Your task to perform on an android device: Open Google Chrome and click the shortcut for Amazon.com Image 0: 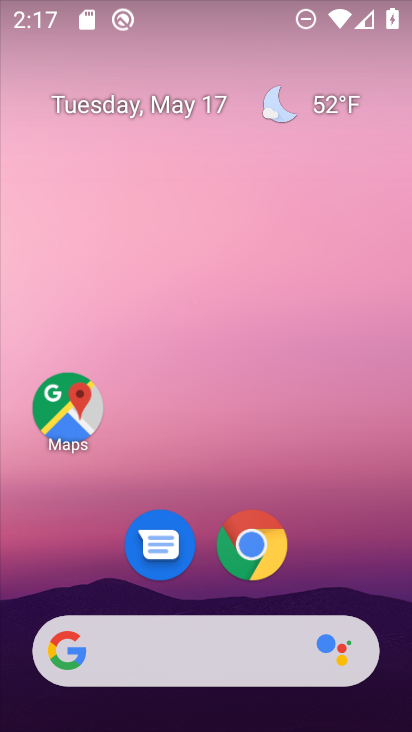
Step 0: drag from (365, 556) to (375, 228)
Your task to perform on an android device: Open Google Chrome and click the shortcut for Amazon.com Image 1: 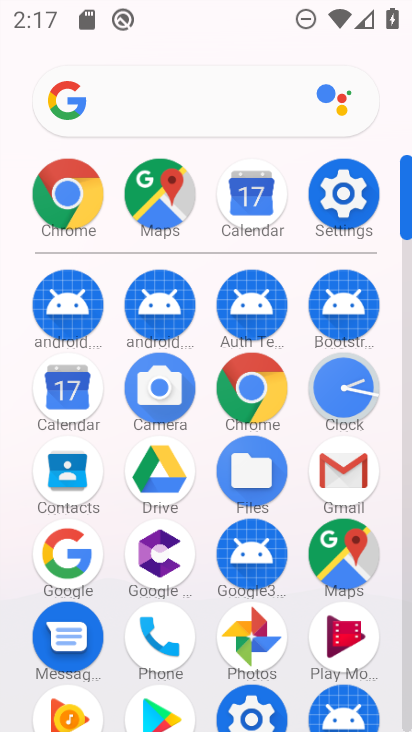
Step 1: click (279, 408)
Your task to perform on an android device: Open Google Chrome and click the shortcut for Amazon.com Image 2: 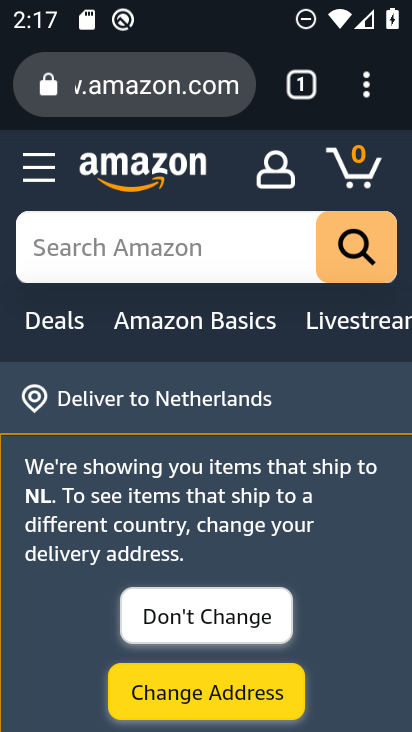
Step 2: task complete